Your task to perform on an android device: show emergency info Image 0: 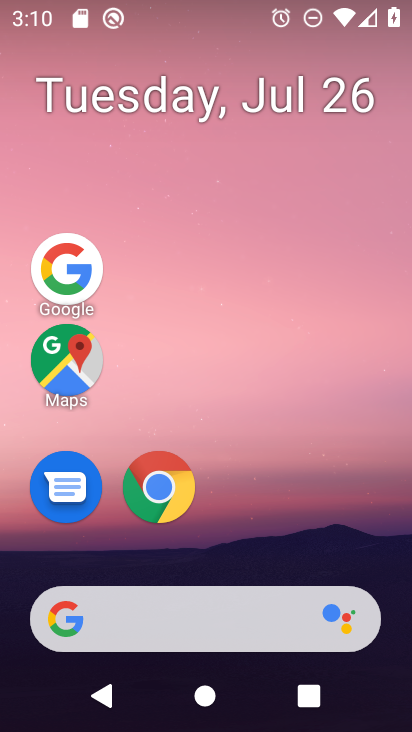
Step 0: drag from (217, 508) to (232, 84)
Your task to perform on an android device: show emergency info Image 1: 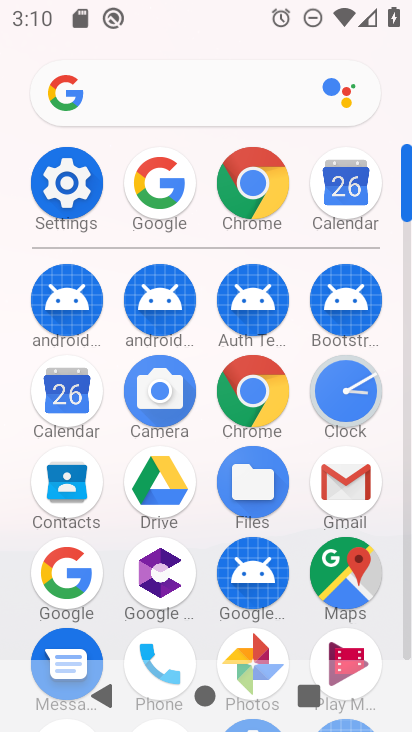
Step 1: click (73, 199)
Your task to perform on an android device: show emergency info Image 2: 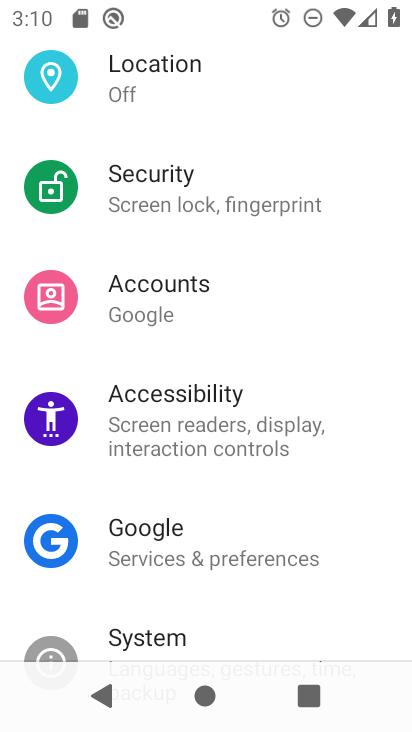
Step 2: drag from (169, 502) to (200, 11)
Your task to perform on an android device: show emergency info Image 3: 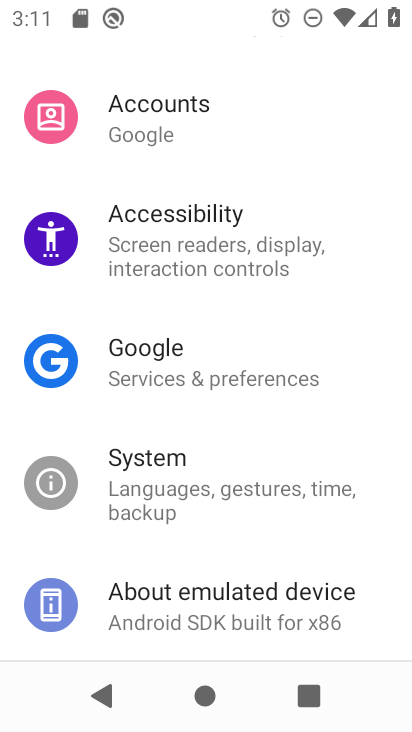
Step 3: drag from (132, 494) to (159, 295)
Your task to perform on an android device: show emergency info Image 4: 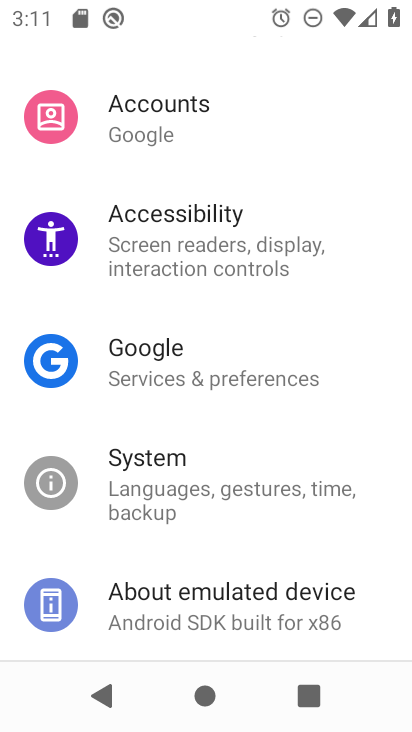
Step 4: drag from (179, 515) to (210, 329)
Your task to perform on an android device: show emergency info Image 5: 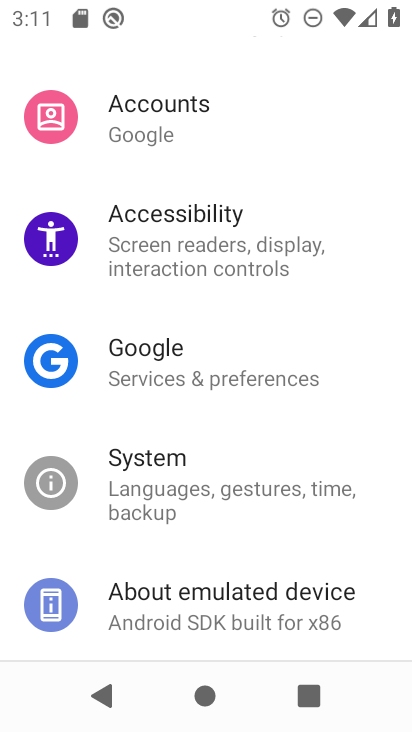
Step 5: click (226, 626)
Your task to perform on an android device: show emergency info Image 6: 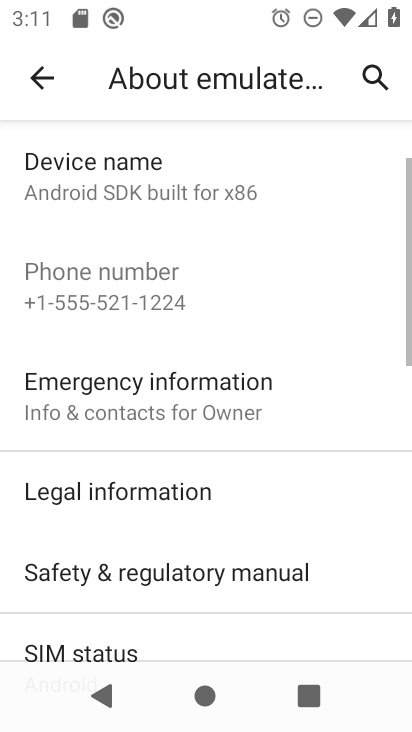
Step 6: click (205, 408)
Your task to perform on an android device: show emergency info Image 7: 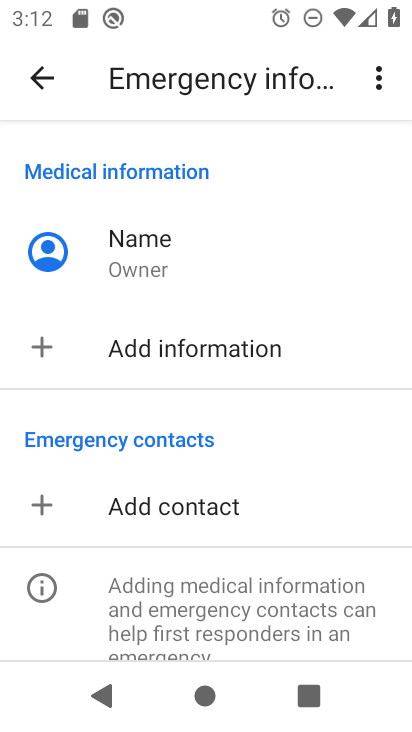
Step 7: task complete